Your task to perform on an android device: Check the weather Image 0: 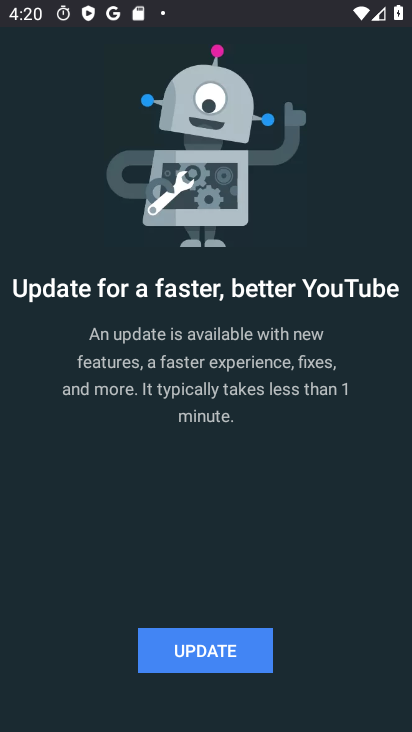
Step 0: press back button
Your task to perform on an android device: Check the weather Image 1: 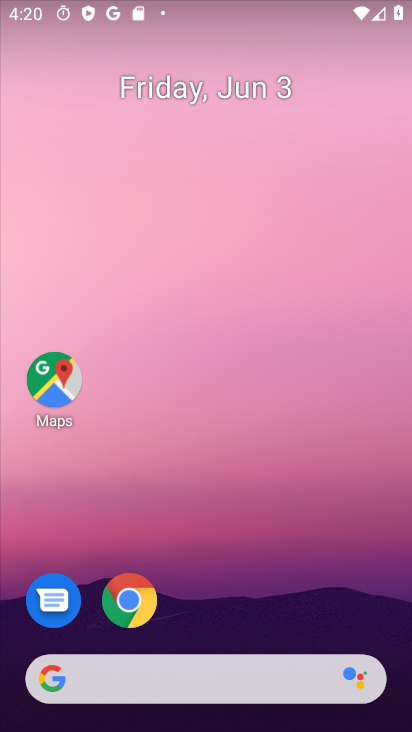
Step 1: drag from (7, 256) to (371, 236)
Your task to perform on an android device: Check the weather Image 2: 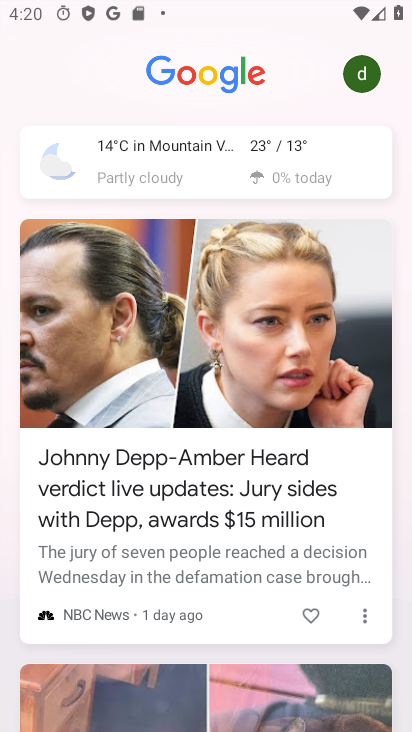
Step 2: click (284, 142)
Your task to perform on an android device: Check the weather Image 3: 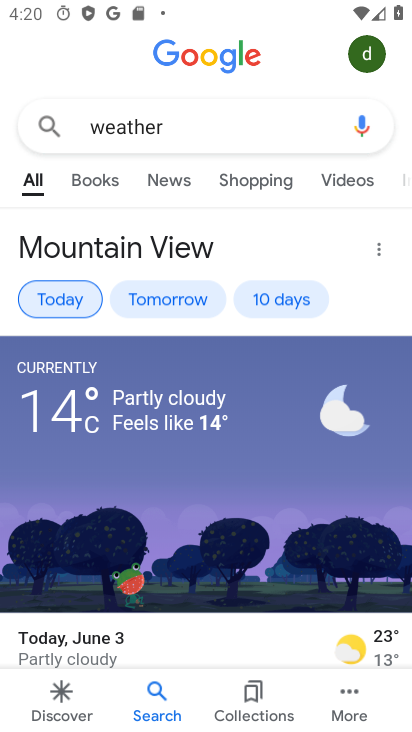
Step 3: click (44, 306)
Your task to perform on an android device: Check the weather Image 4: 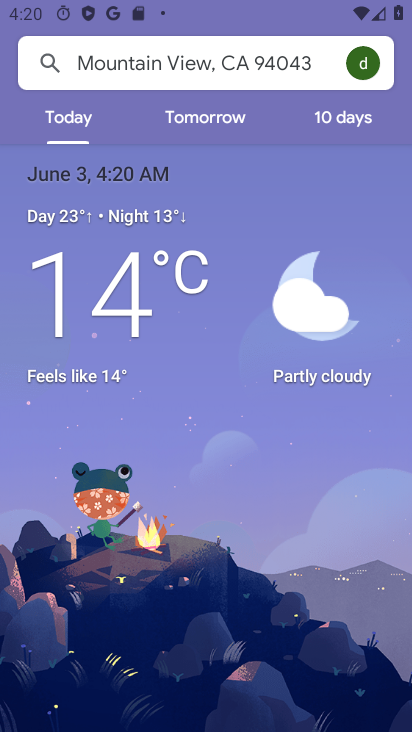
Step 4: task complete